Your task to perform on an android device: Go to Maps Image 0: 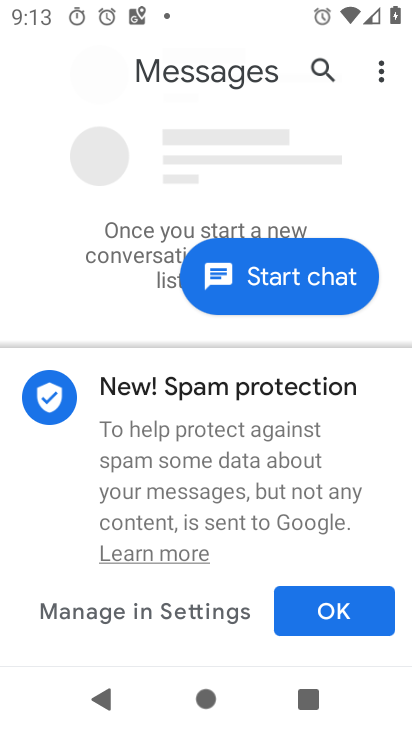
Step 0: press back button
Your task to perform on an android device: Go to Maps Image 1: 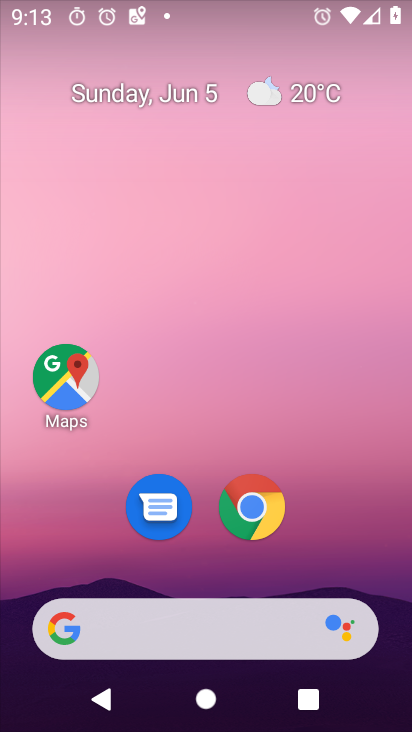
Step 1: drag from (323, 541) to (242, 28)
Your task to perform on an android device: Go to Maps Image 2: 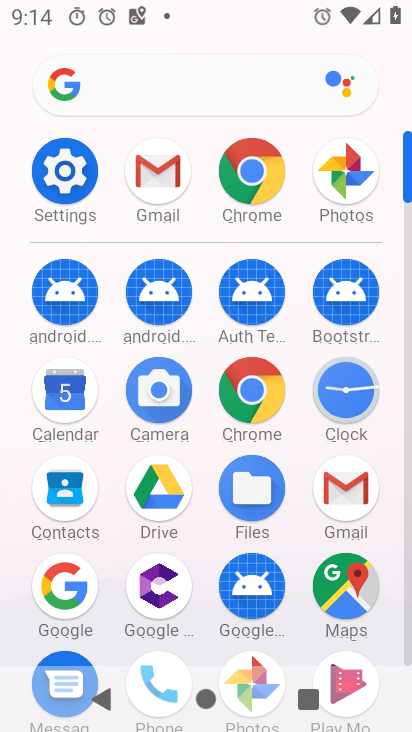
Step 2: click (344, 583)
Your task to perform on an android device: Go to Maps Image 3: 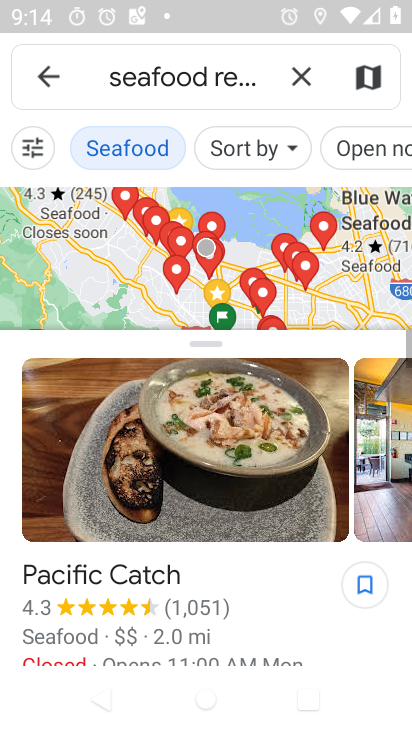
Step 3: click (53, 79)
Your task to perform on an android device: Go to Maps Image 4: 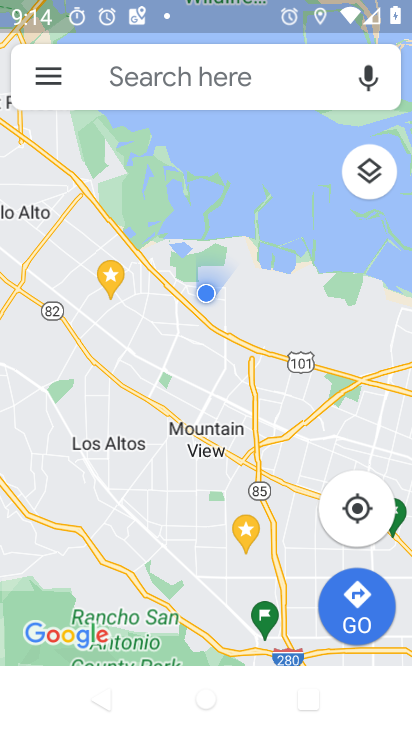
Step 4: task complete